Your task to perform on an android device: star an email in the gmail app Image 0: 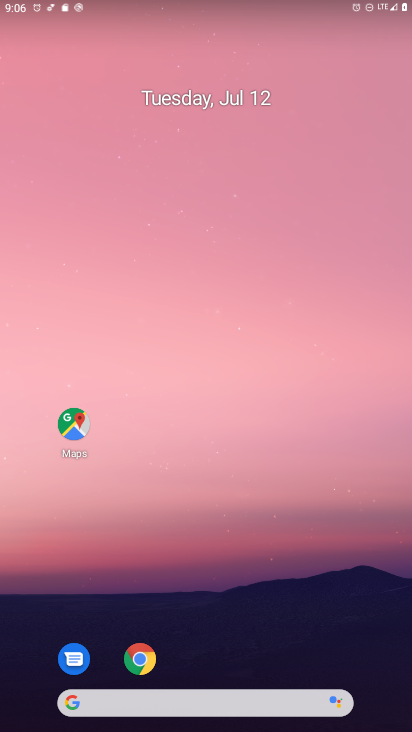
Step 0: drag from (191, 698) to (201, 57)
Your task to perform on an android device: star an email in the gmail app Image 1: 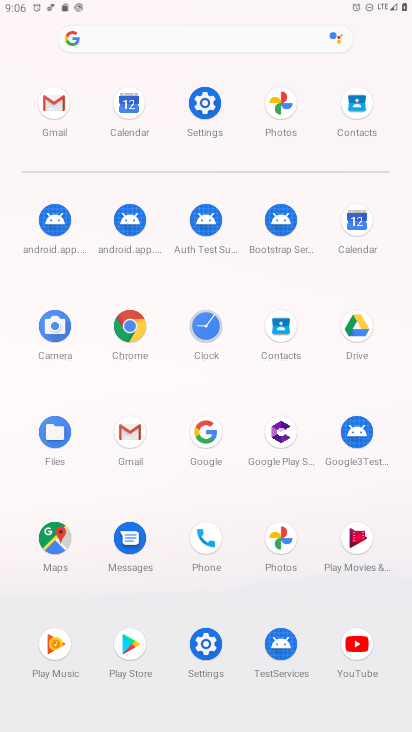
Step 1: click (54, 103)
Your task to perform on an android device: star an email in the gmail app Image 2: 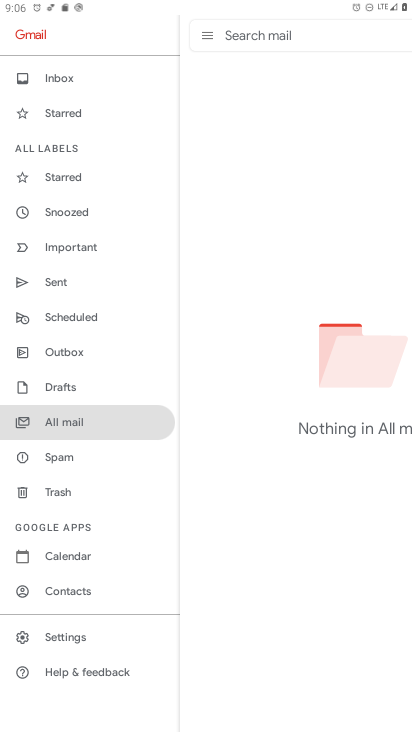
Step 2: click (71, 70)
Your task to perform on an android device: star an email in the gmail app Image 3: 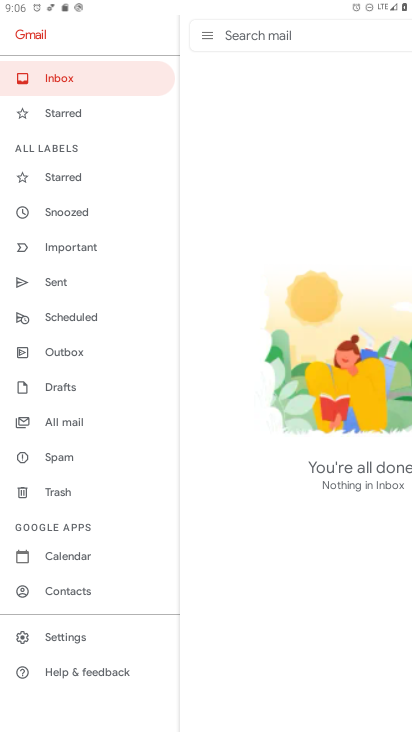
Step 3: click (53, 119)
Your task to perform on an android device: star an email in the gmail app Image 4: 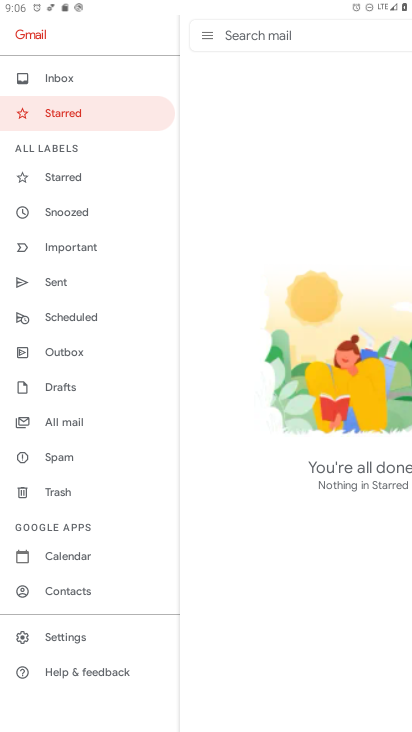
Step 4: click (61, 181)
Your task to perform on an android device: star an email in the gmail app Image 5: 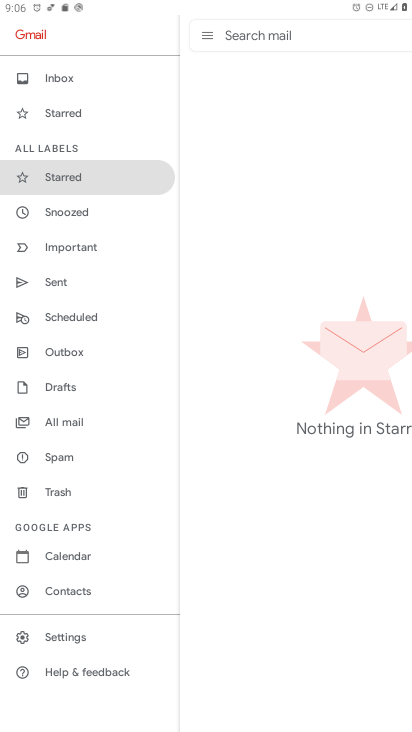
Step 5: click (81, 213)
Your task to perform on an android device: star an email in the gmail app Image 6: 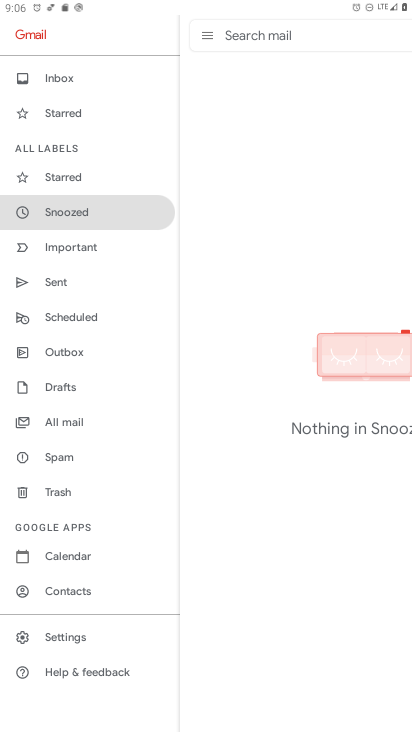
Step 6: click (81, 245)
Your task to perform on an android device: star an email in the gmail app Image 7: 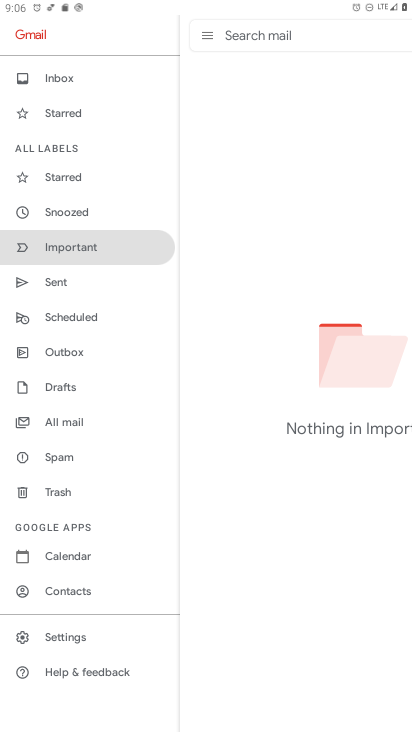
Step 7: click (51, 282)
Your task to perform on an android device: star an email in the gmail app Image 8: 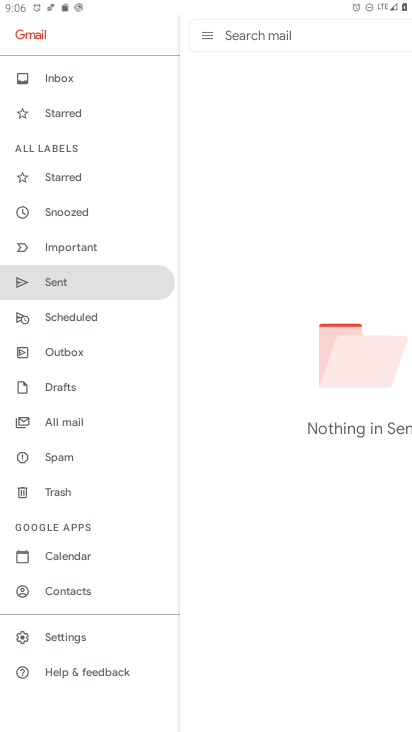
Step 8: click (47, 312)
Your task to perform on an android device: star an email in the gmail app Image 9: 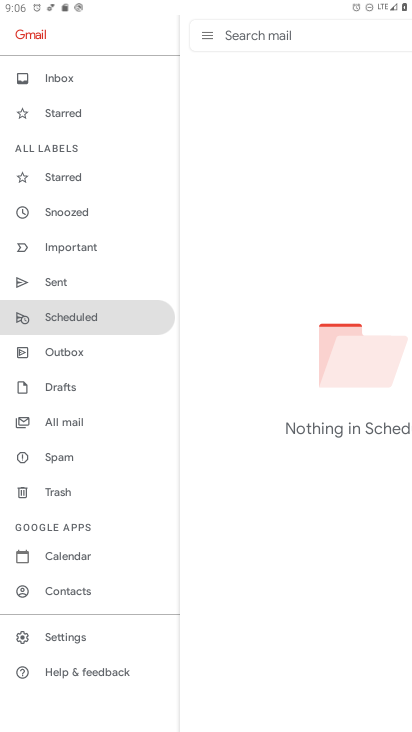
Step 9: click (51, 345)
Your task to perform on an android device: star an email in the gmail app Image 10: 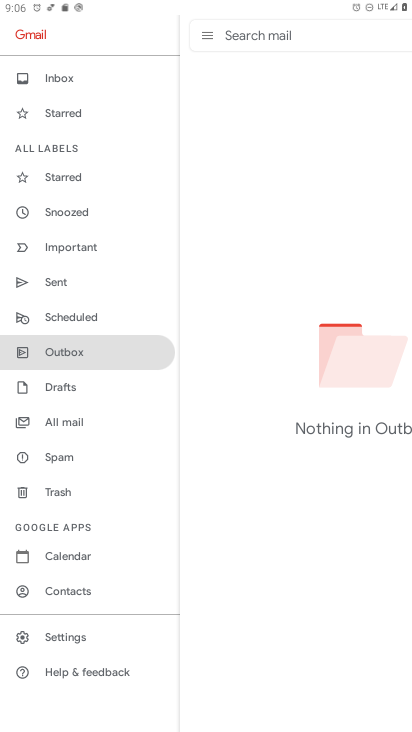
Step 10: click (61, 390)
Your task to perform on an android device: star an email in the gmail app Image 11: 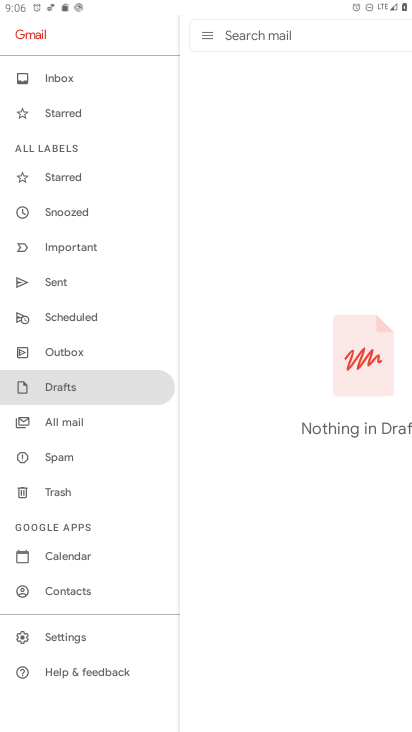
Step 11: click (74, 423)
Your task to perform on an android device: star an email in the gmail app Image 12: 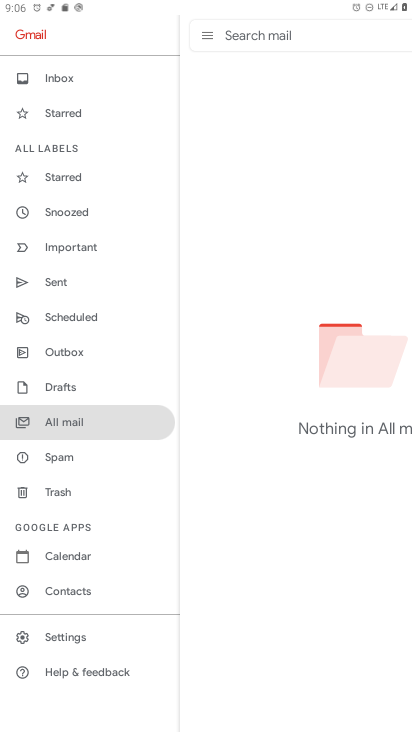
Step 12: click (76, 462)
Your task to perform on an android device: star an email in the gmail app Image 13: 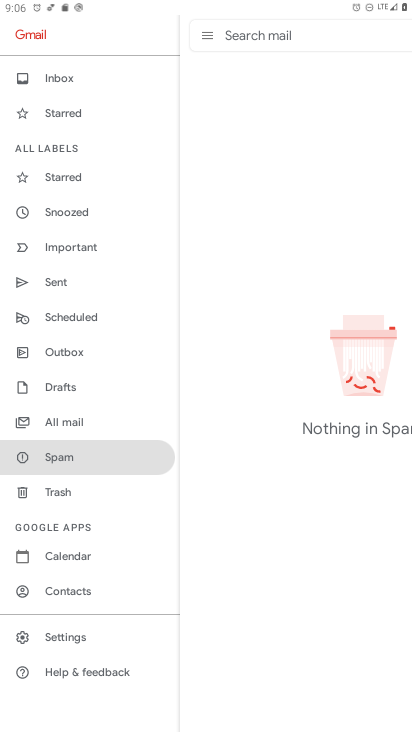
Step 13: click (79, 483)
Your task to perform on an android device: star an email in the gmail app Image 14: 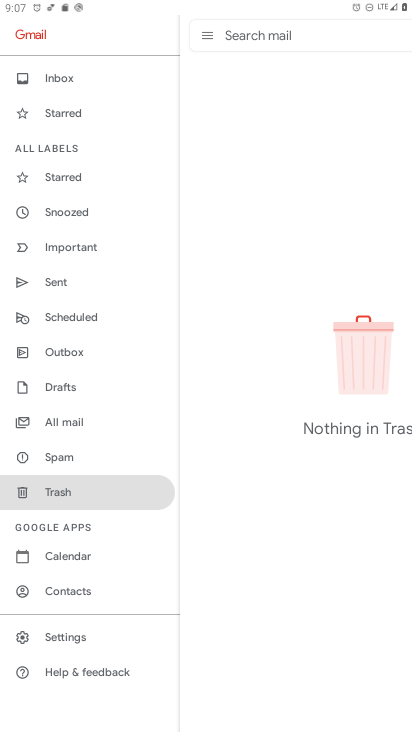
Step 14: task complete